Your task to perform on an android device: Open Google Chrome and open the bookmarks view Image 0: 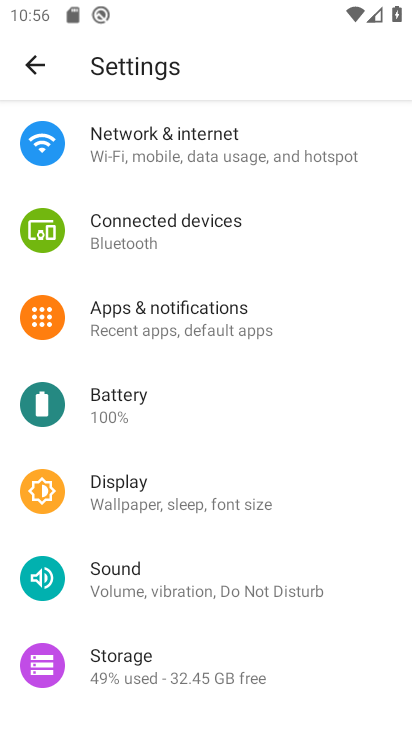
Step 0: press home button
Your task to perform on an android device: Open Google Chrome and open the bookmarks view Image 1: 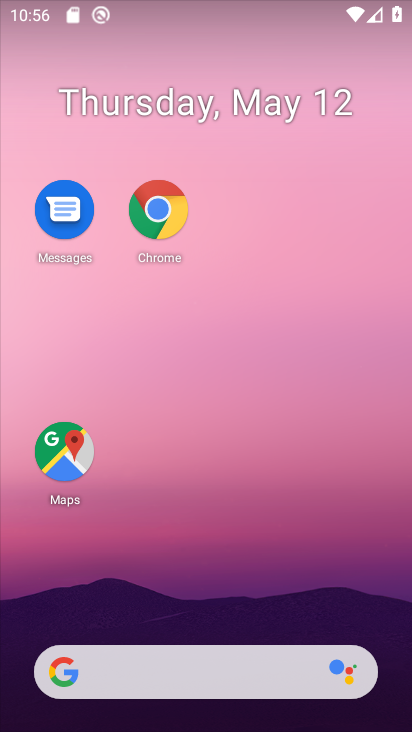
Step 1: click (168, 223)
Your task to perform on an android device: Open Google Chrome and open the bookmarks view Image 2: 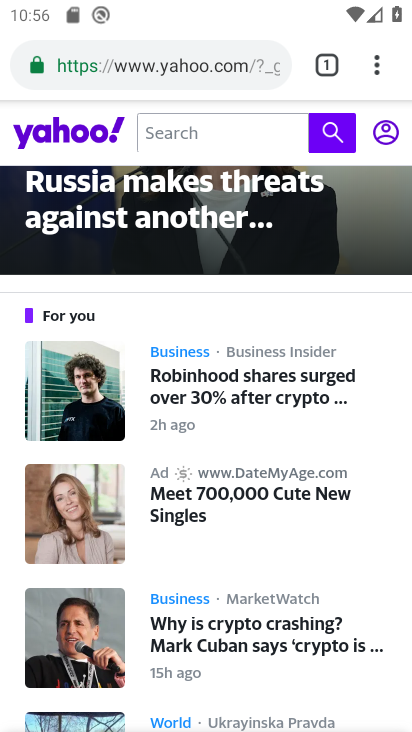
Step 2: click (375, 66)
Your task to perform on an android device: Open Google Chrome and open the bookmarks view Image 3: 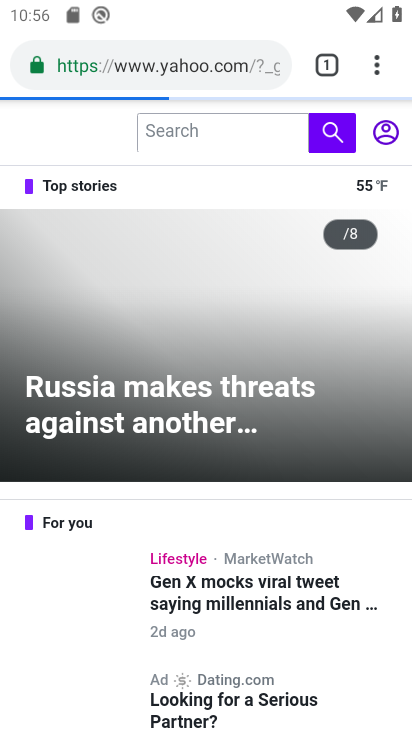
Step 3: click (377, 64)
Your task to perform on an android device: Open Google Chrome and open the bookmarks view Image 4: 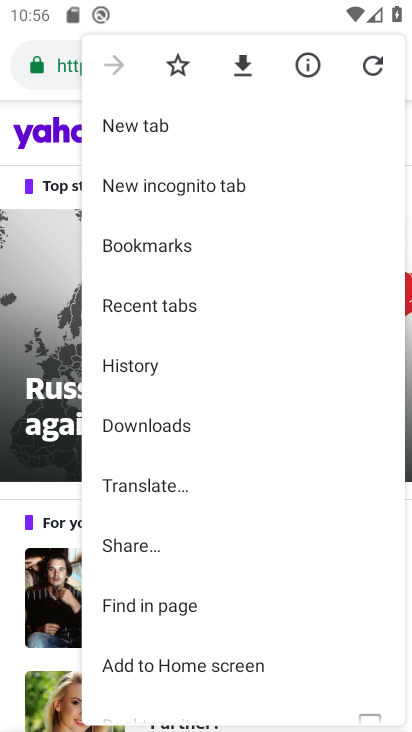
Step 4: click (193, 241)
Your task to perform on an android device: Open Google Chrome and open the bookmarks view Image 5: 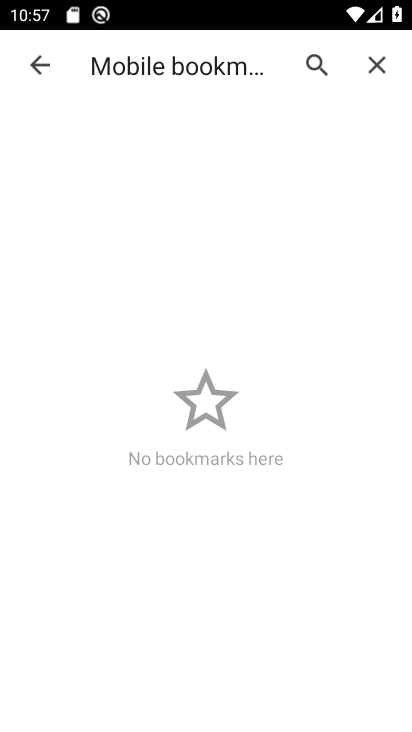
Step 5: task complete